Your task to perform on an android device: Open Amazon Image 0: 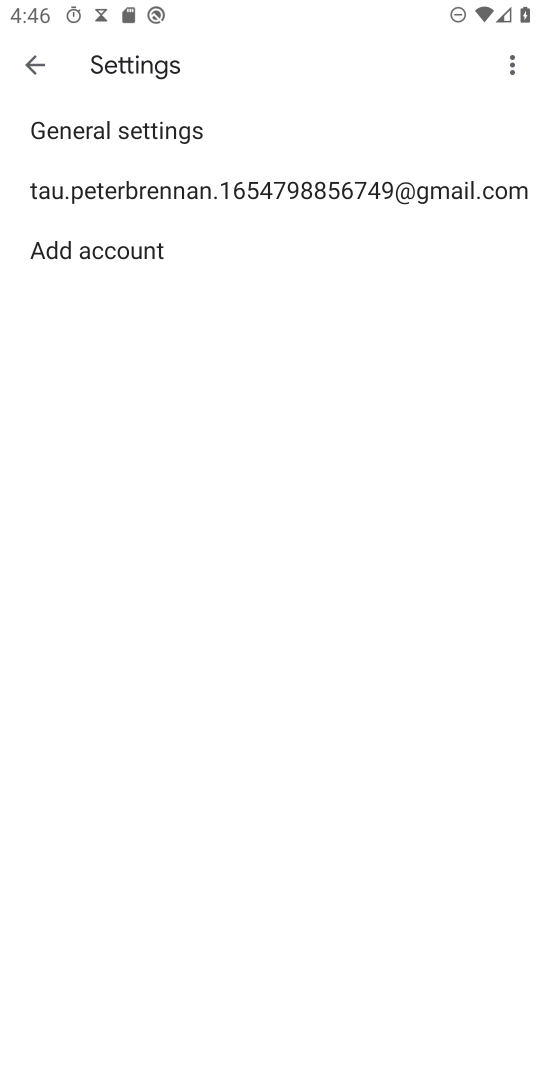
Step 0: press home button
Your task to perform on an android device: Open Amazon Image 1: 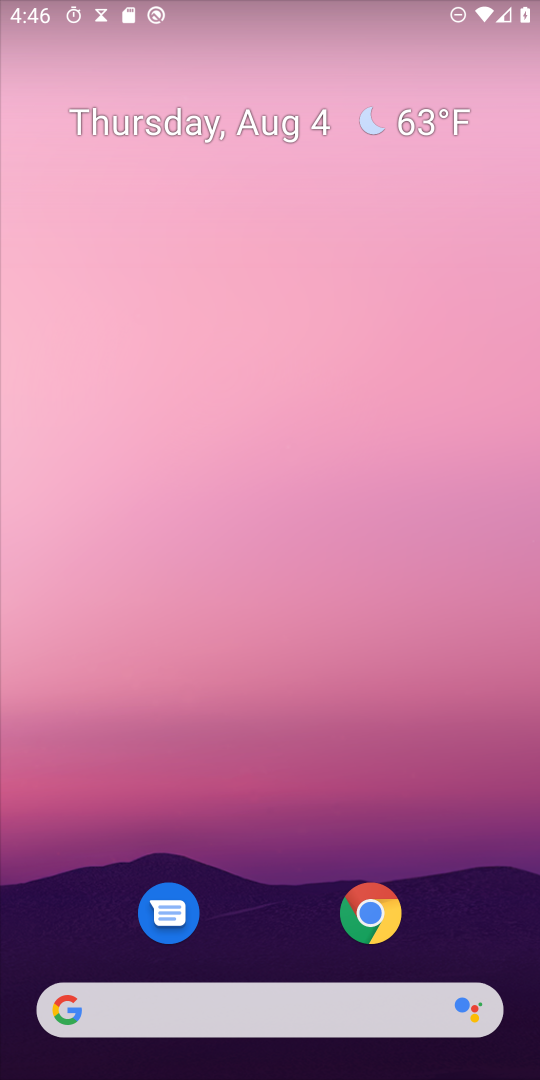
Step 1: drag from (389, 993) to (377, 3)
Your task to perform on an android device: Open Amazon Image 2: 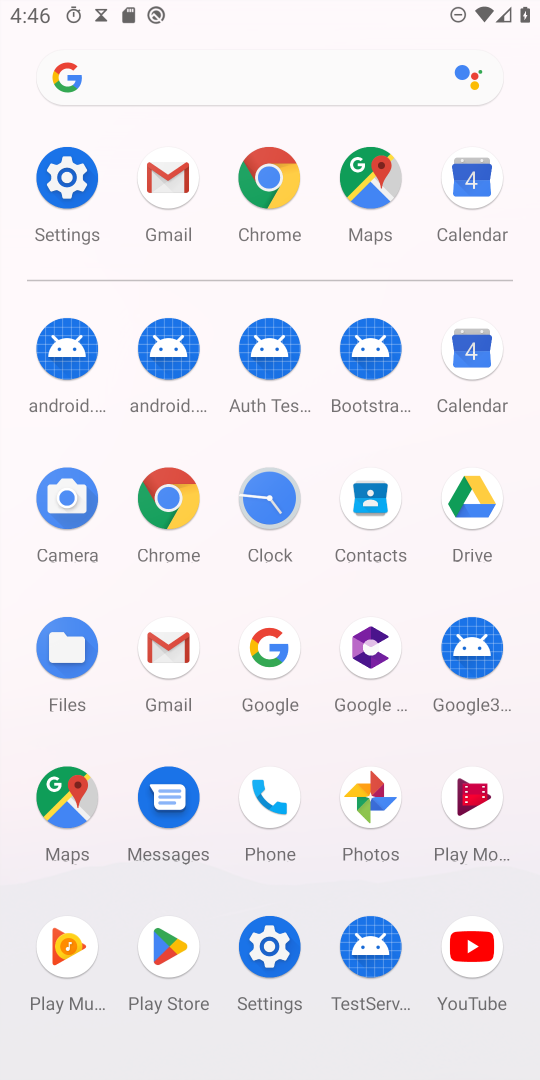
Step 2: click (181, 501)
Your task to perform on an android device: Open Amazon Image 3: 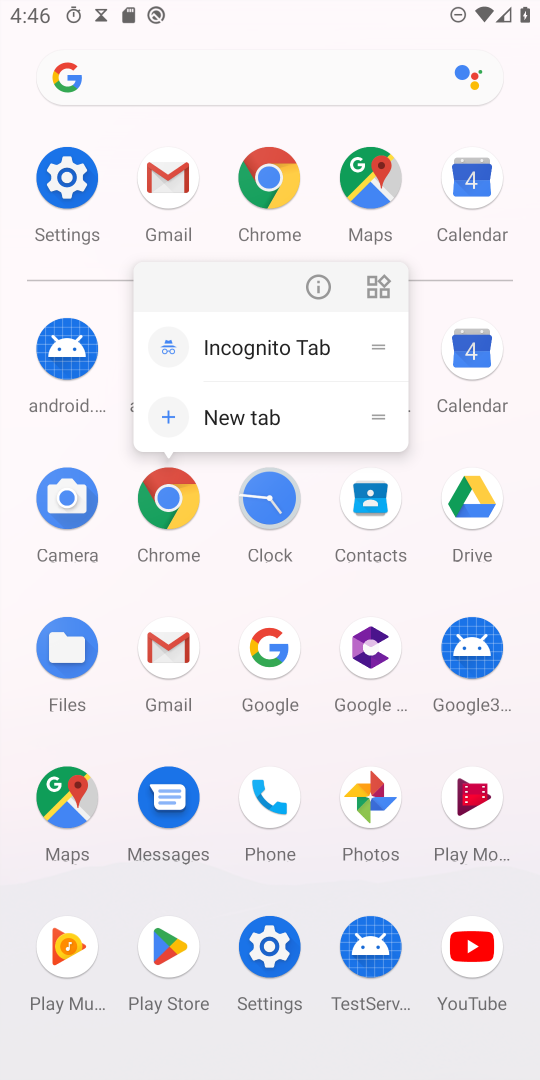
Step 3: click (174, 498)
Your task to perform on an android device: Open Amazon Image 4: 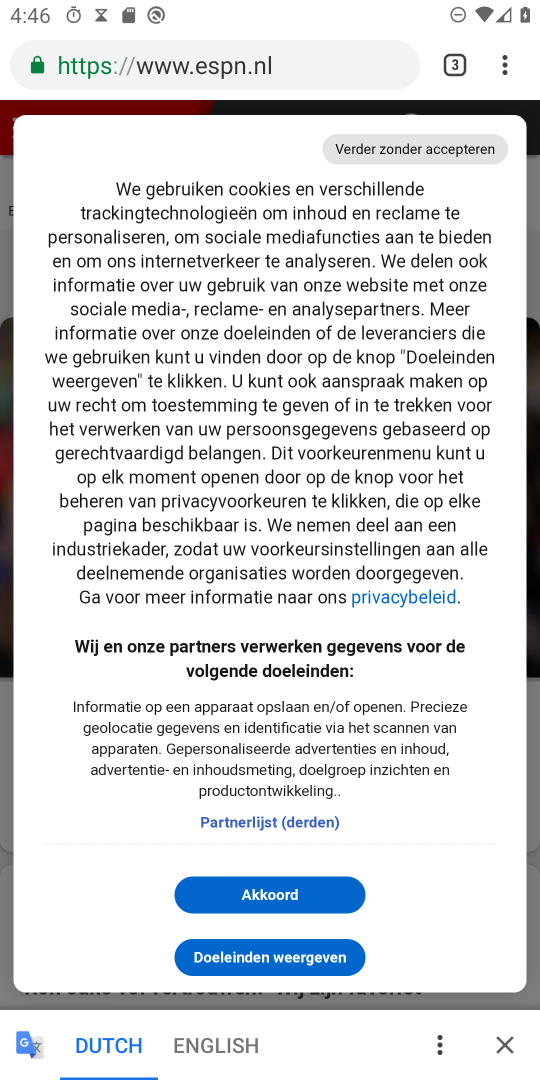
Step 4: drag from (505, 56) to (308, 101)
Your task to perform on an android device: Open Amazon Image 5: 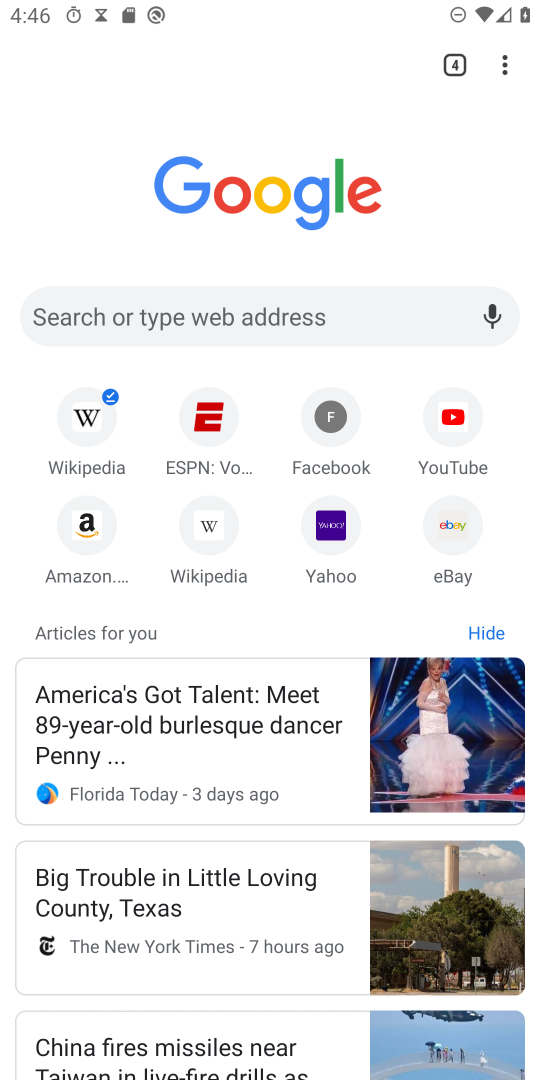
Step 5: click (76, 533)
Your task to perform on an android device: Open Amazon Image 6: 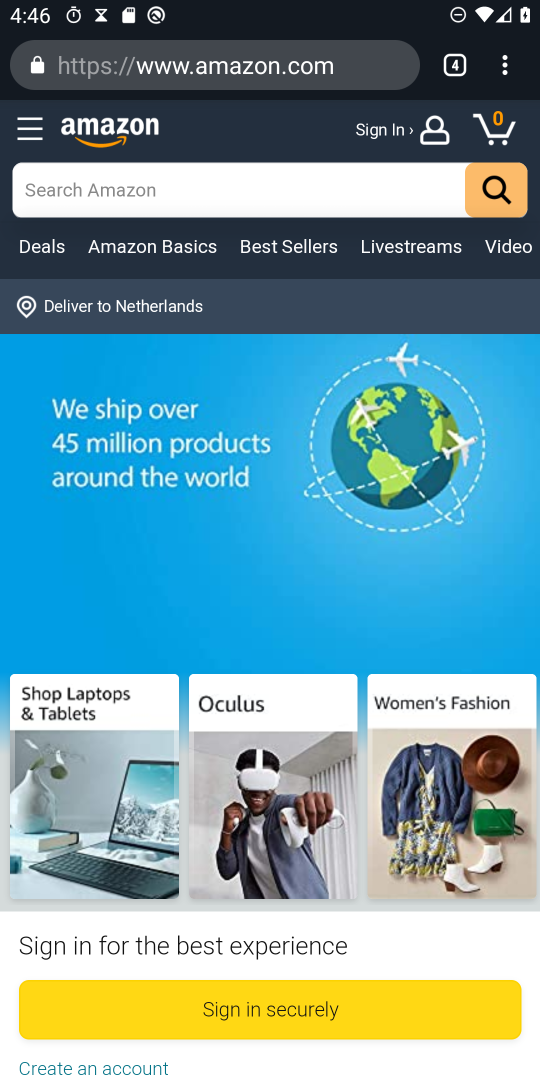
Step 6: task complete